Your task to perform on an android device: change timer sound Image 0: 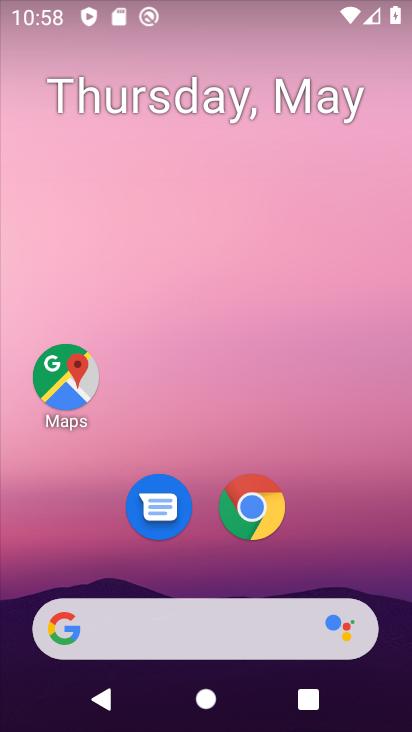
Step 0: drag from (234, 657) to (262, 160)
Your task to perform on an android device: change timer sound Image 1: 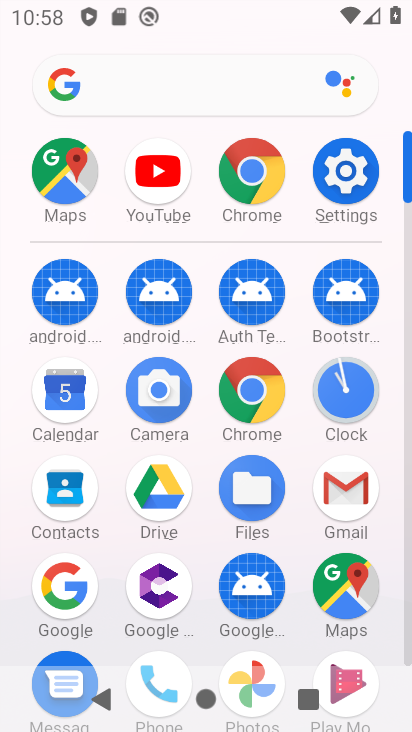
Step 1: click (349, 190)
Your task to perform on an android device: change timer sound Image 2: 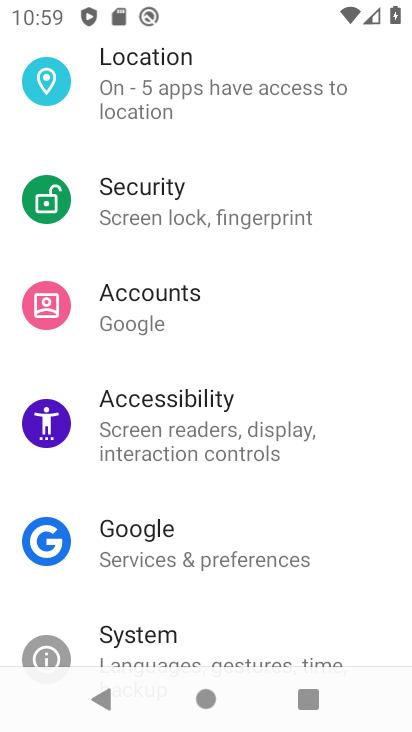
Step 2: press home button
Your task to perform on an android device: change timer sound Image 3: 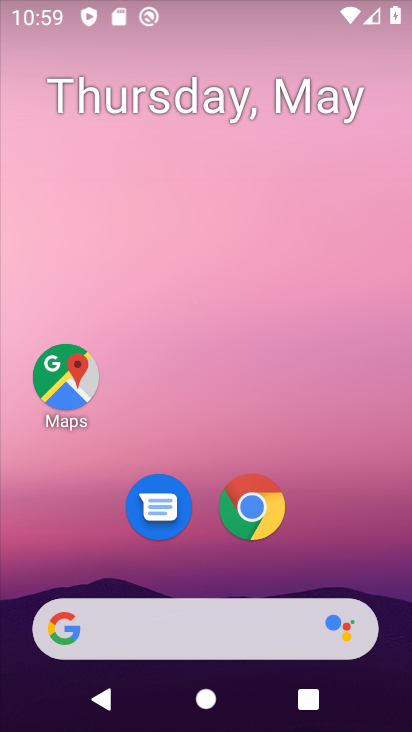
Step 3: drag from (239, 573) to (252, 108)
Your task to perform on an android device: change timer sound Image 4: 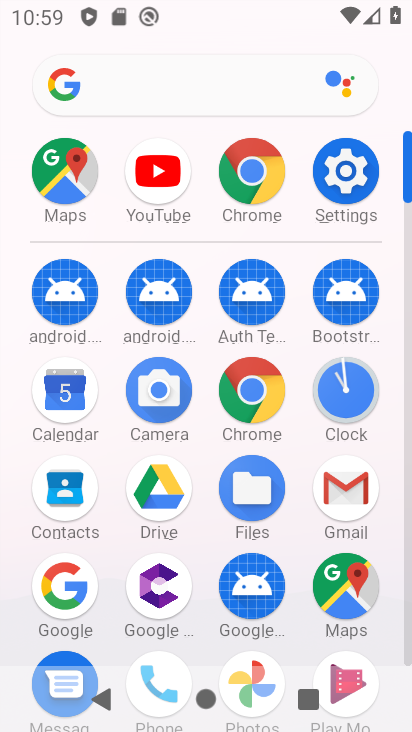
Step 4: click (347, 418)
Your task to perform on an android device: change timer sound Image 5: 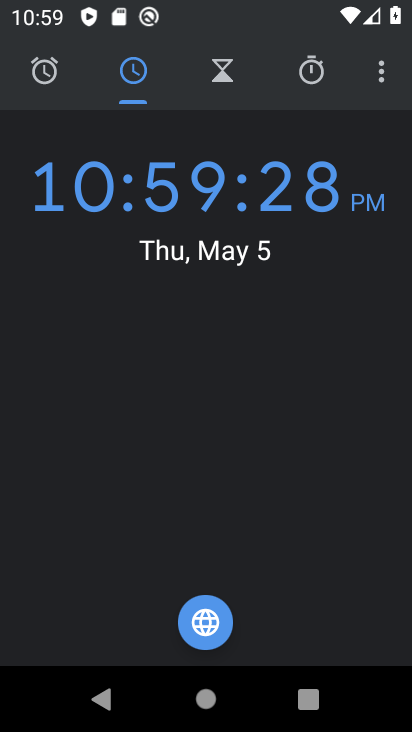
Step 5: click (383, 93)
Your task to perform on an android device: change timer sound Image 6: 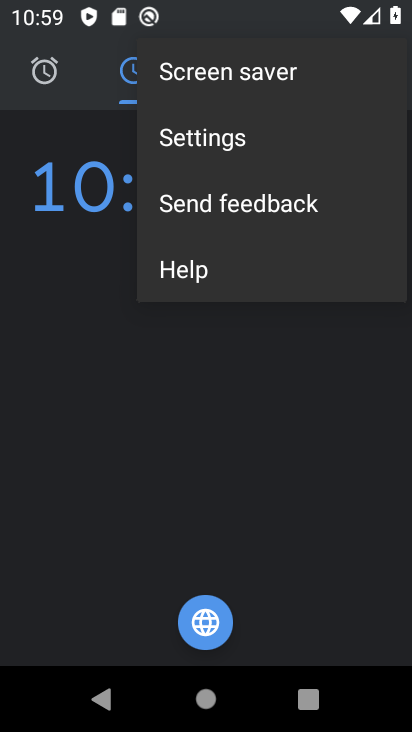
Step 6: click (263, 150)
Your task to perform on an android device: change timer sound Image 7: 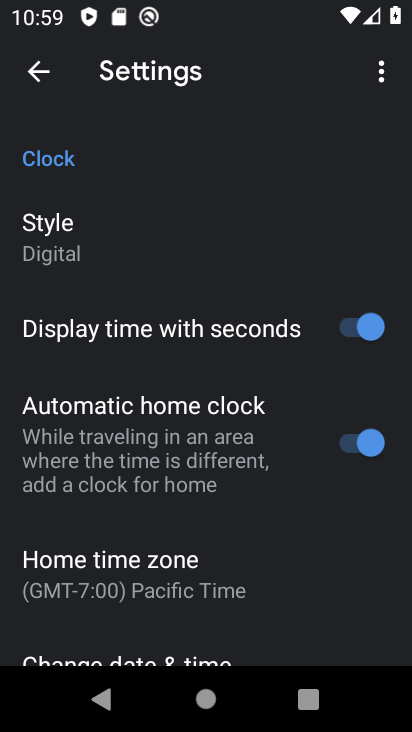
Step 7: drag from (190, 506) to (226, 47)
Your task to perform on an android device: change timer sound Image 8: 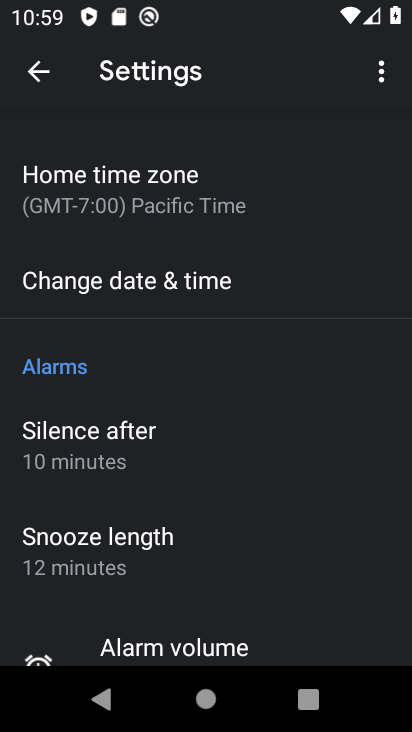
Step 8: drag from (200, 481) to (163, 233)
Your task to perform on an android device: change timer sound Image 9: 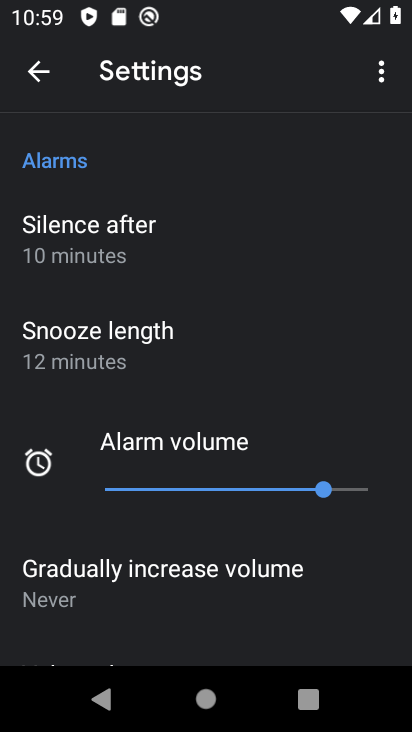
Step 9: drag from (157, 515) to (157, 271)
Your task to perform on an android device: change timer sound Image 10: 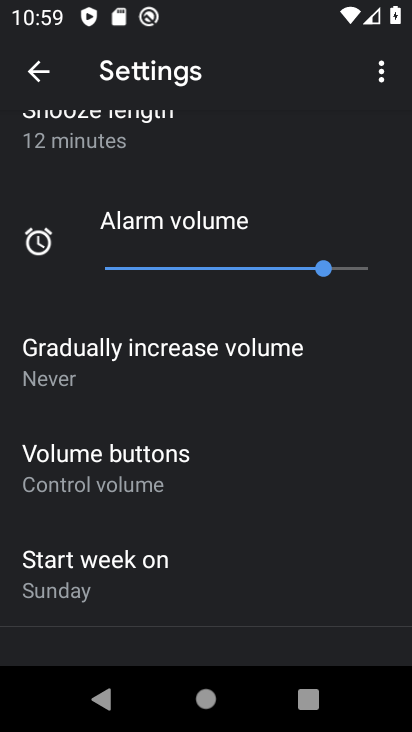
Step 10: drag from (208, 583) to (238, 202)
Your task to perform on an android device: change timer sound Image 11: 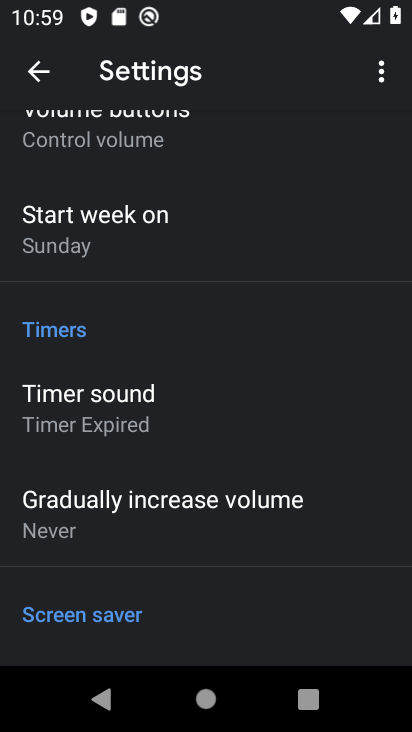
Step 11: drag from (181, 502) to (177, 379)
Your task to perform on an android device: change timer sound Image 12: 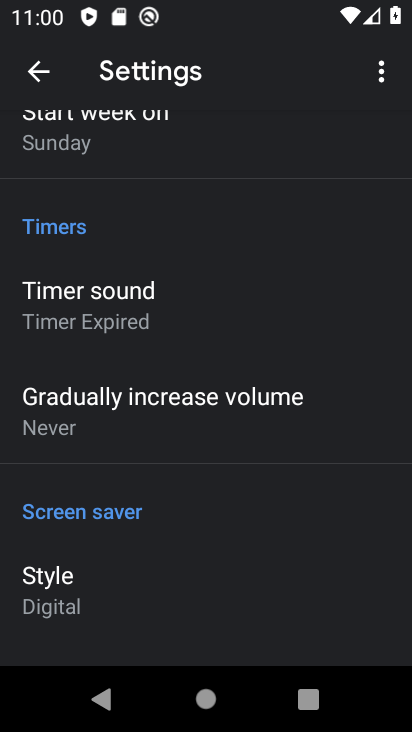
Step 12: click (168, 305)
Your task to perform on an android device: change timer sound Image 13: 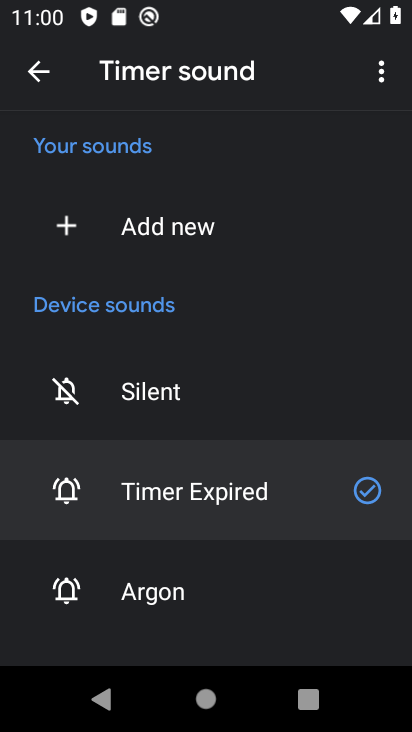
Step 13: click (191, 598)
Your task to perform on an android device: change timer sound Image 14: 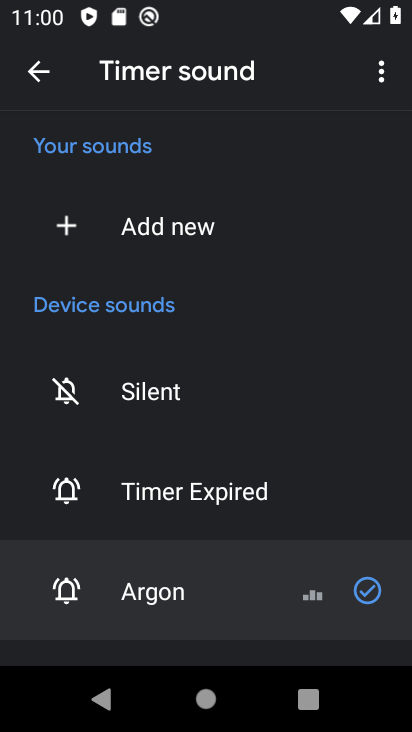
Step 14: task complete